Your task to perform on an android device: all mails in gmail Image 0: 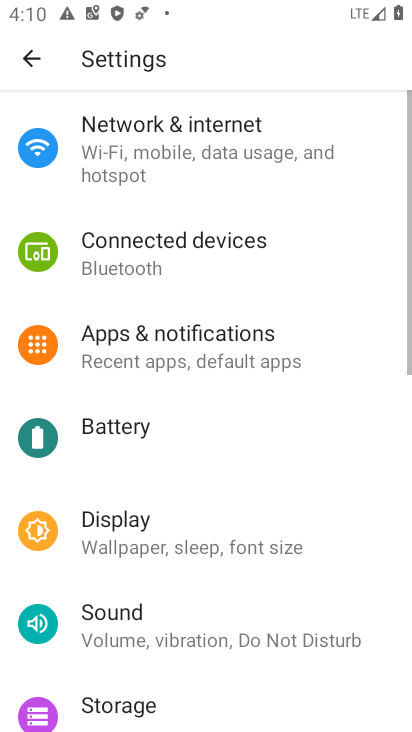
Step 0: drag from (349, 563) to (342, 215)
Your task to perform on an android device: all mails in gmail Image 1: 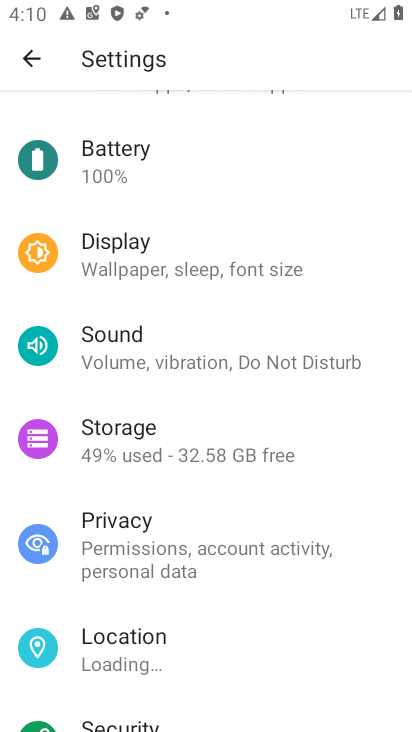
Step 1: press home button
Your task to perform on an android device: all mails in gmail Image 2: 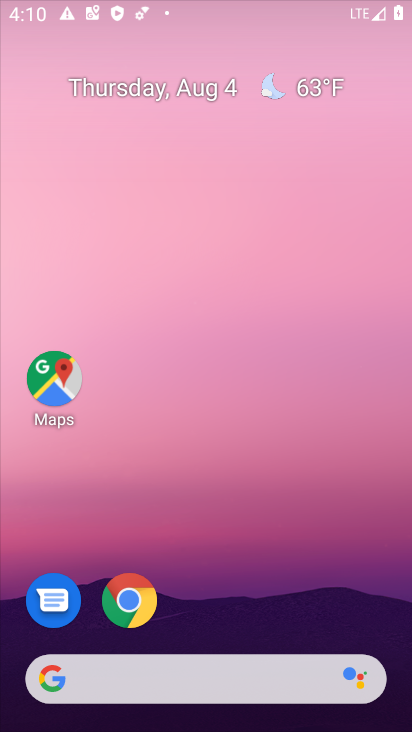
Step 2: drag from (276, 604) to (279, 228)
Your task to perform on an android device: all mails in gmail Image 3: 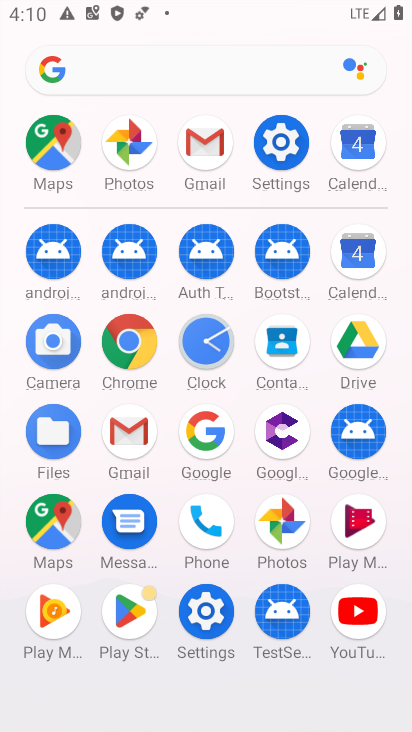
Step 3: click (208, 137)
Your task to perform on an android device: all mails in gmail Image 4: 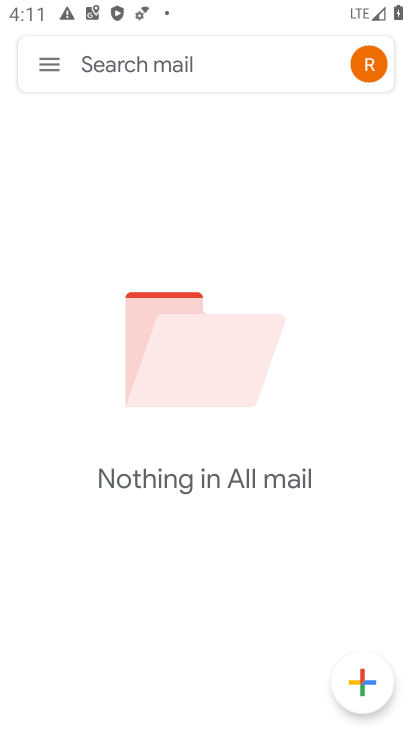
Step 4: click (33, 58)
Your task to perform on an android device: all mails in gmail Image 5: 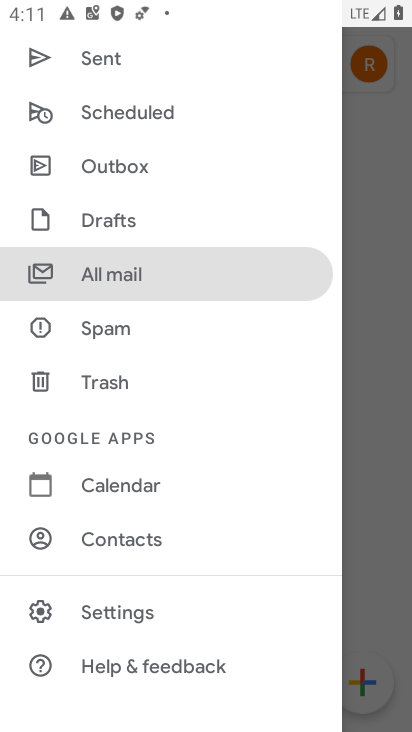
Step 5: click (366, 300)
Your task to perform on an android device: all mails in gmail Image 6: 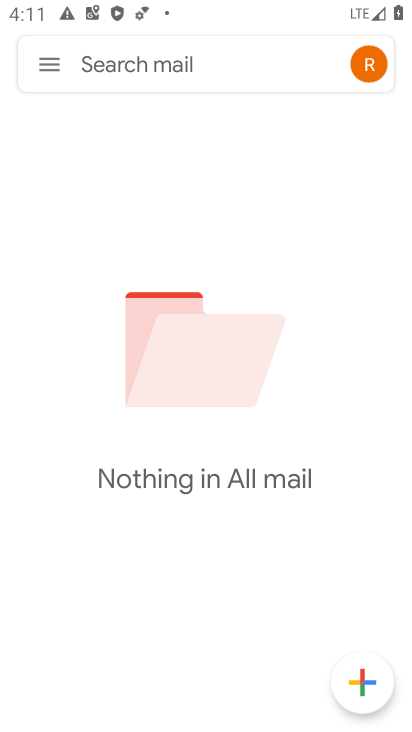
Step 6: task complete